Your task to perform on an android device: Open network settings Image 0: 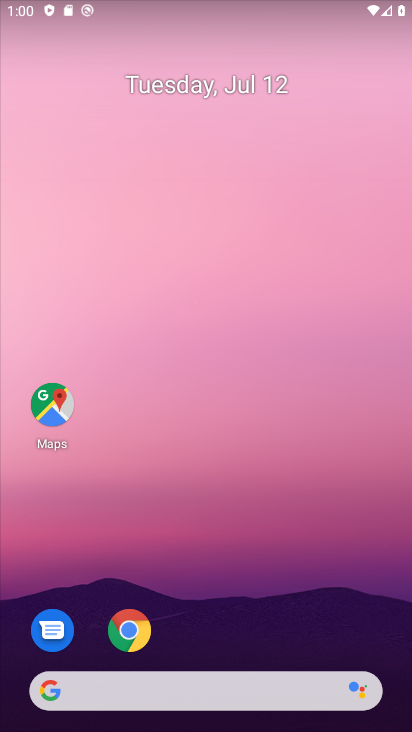
Step 0: drag from (347, 613) to (263, 169)
Your task to perform on an android device: Open network settings Image 1: 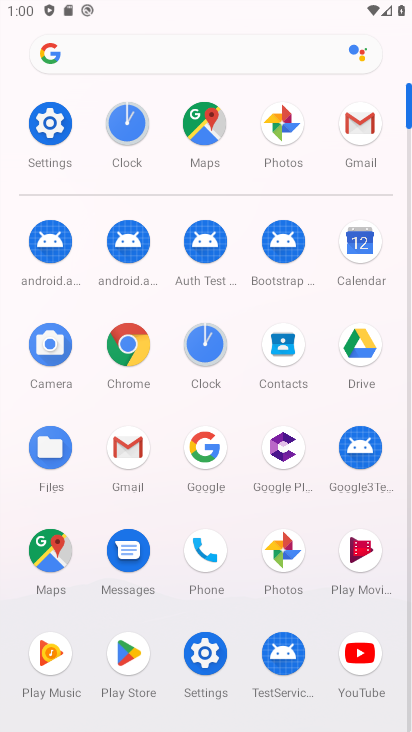
Step 1: click (205, 645)
Your task to perform on an android device: Open network settings Image 2: 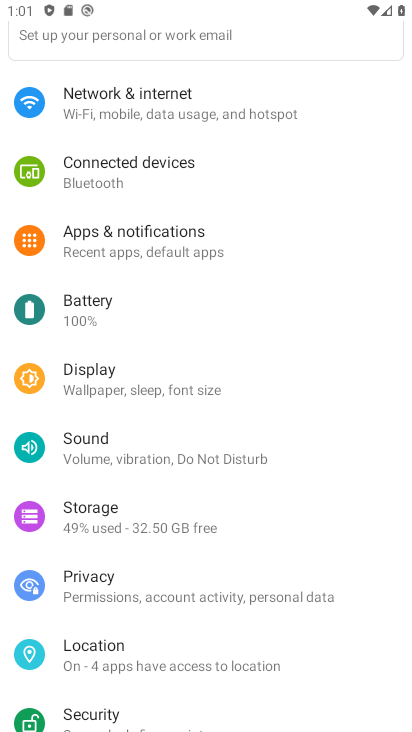
Step 2: click (112, 105)
Your task to perform on an android device: Open network settings Image 3: 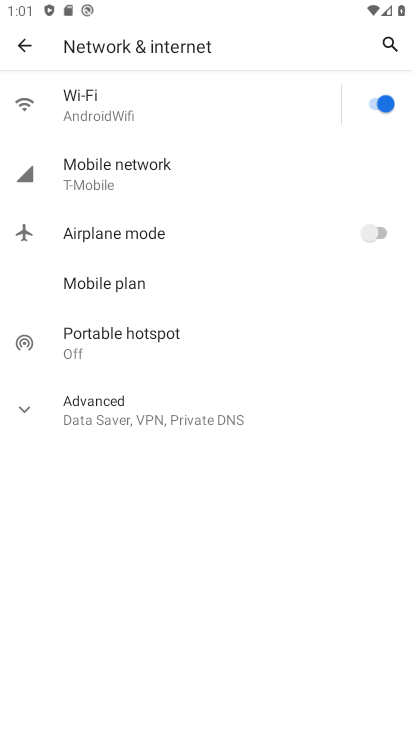
Step 3: click (107, 171)
Your task to perform on an android device: Open network settings Image 4: 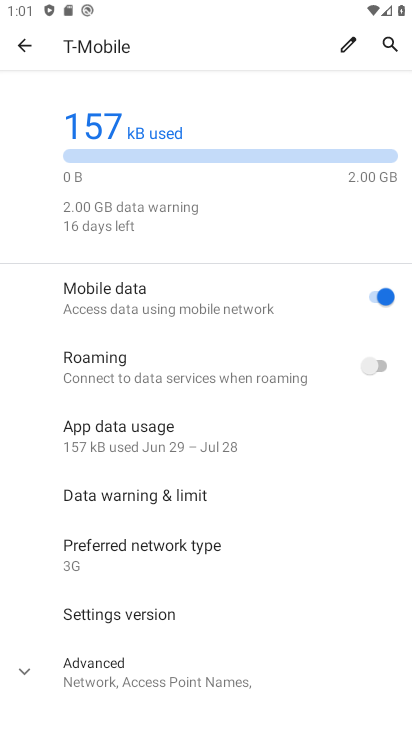
Step 4: task complete